Your task to perform on an android device: Open the map Image 0: 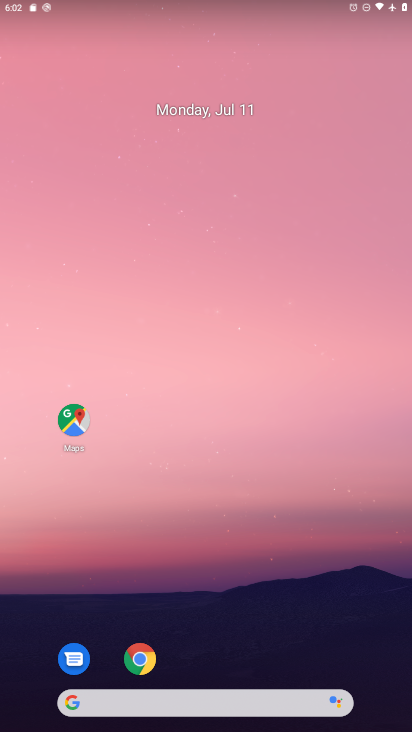
Step 0: click (76, 421)
Your task to perform on an android device: Open the map Image 1: 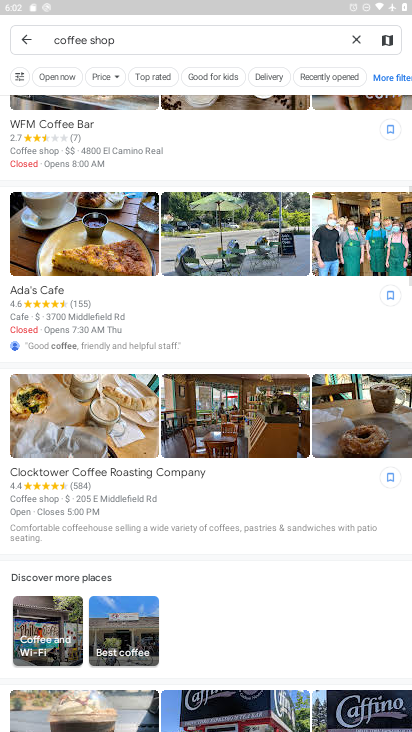
Step 1: click (27, 39)
Your task to perform on an android device: Open the map Image 2: 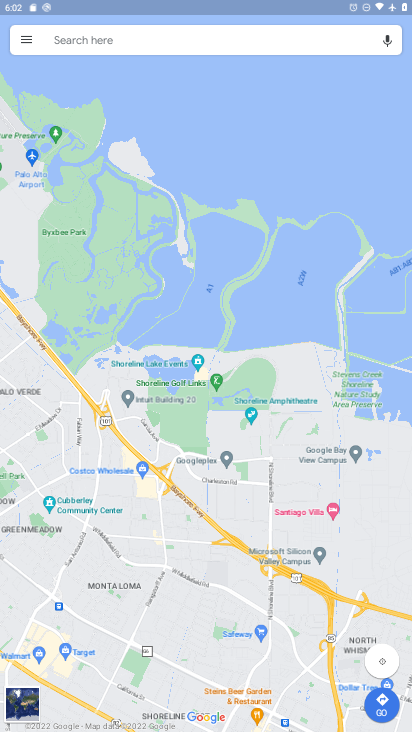
Step 2: task complete